Your task to perform on an android device: delete a single message in the gmail app Image 0: 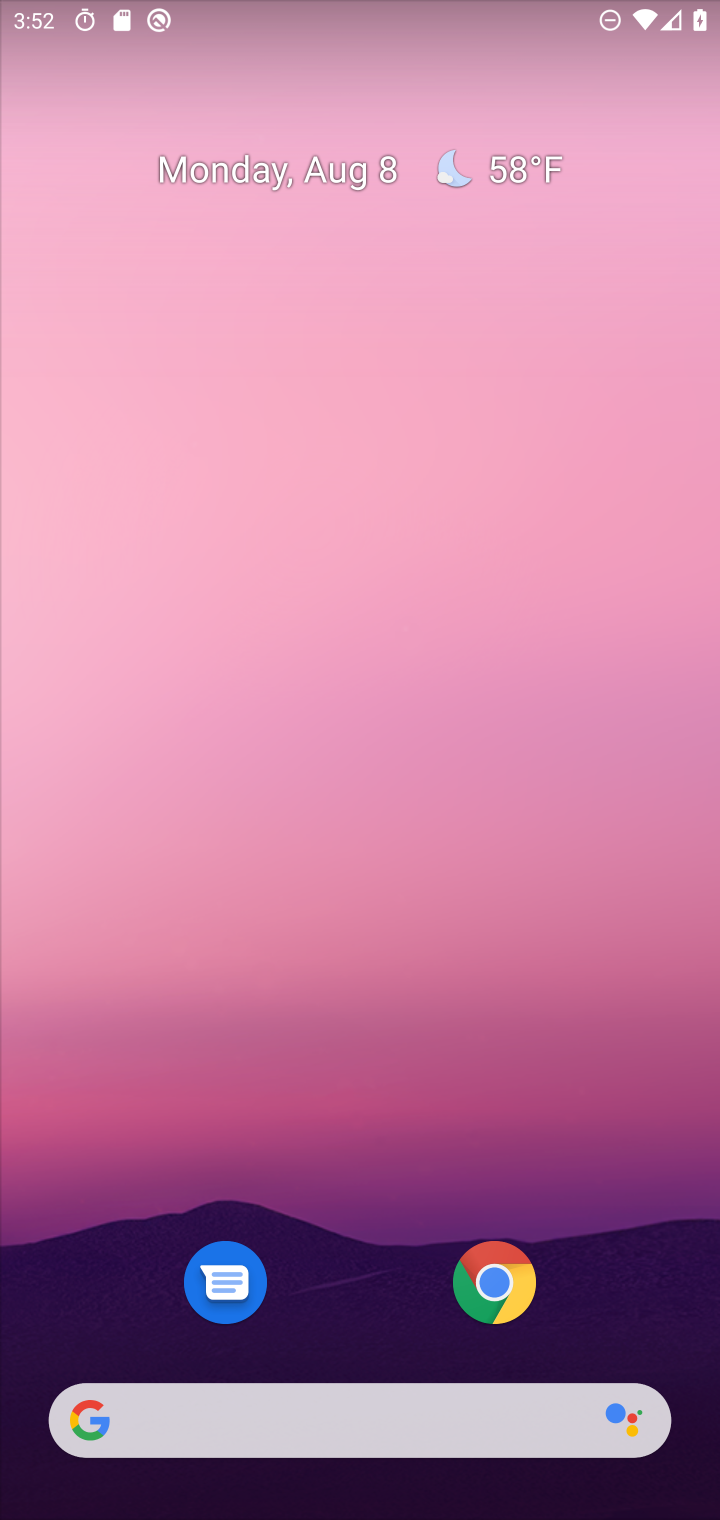
Step 0: drag from (313, 1093) to (342, 334)
Your task to perform on an android device: delete a single message in the gmail app Image 1: 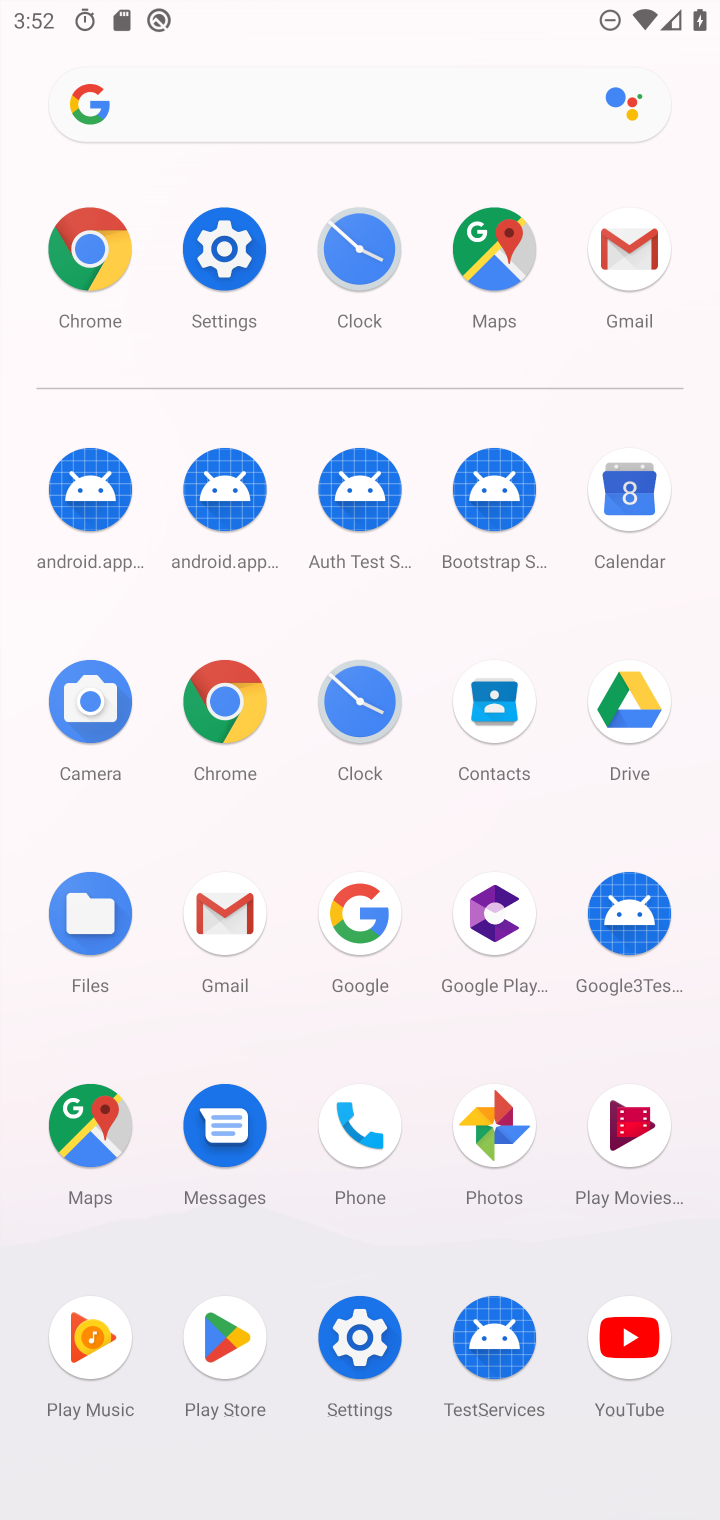
Step 1: click (228, 902)
Your task to perform on an android device: delete a single message in the gmail app Image 2: 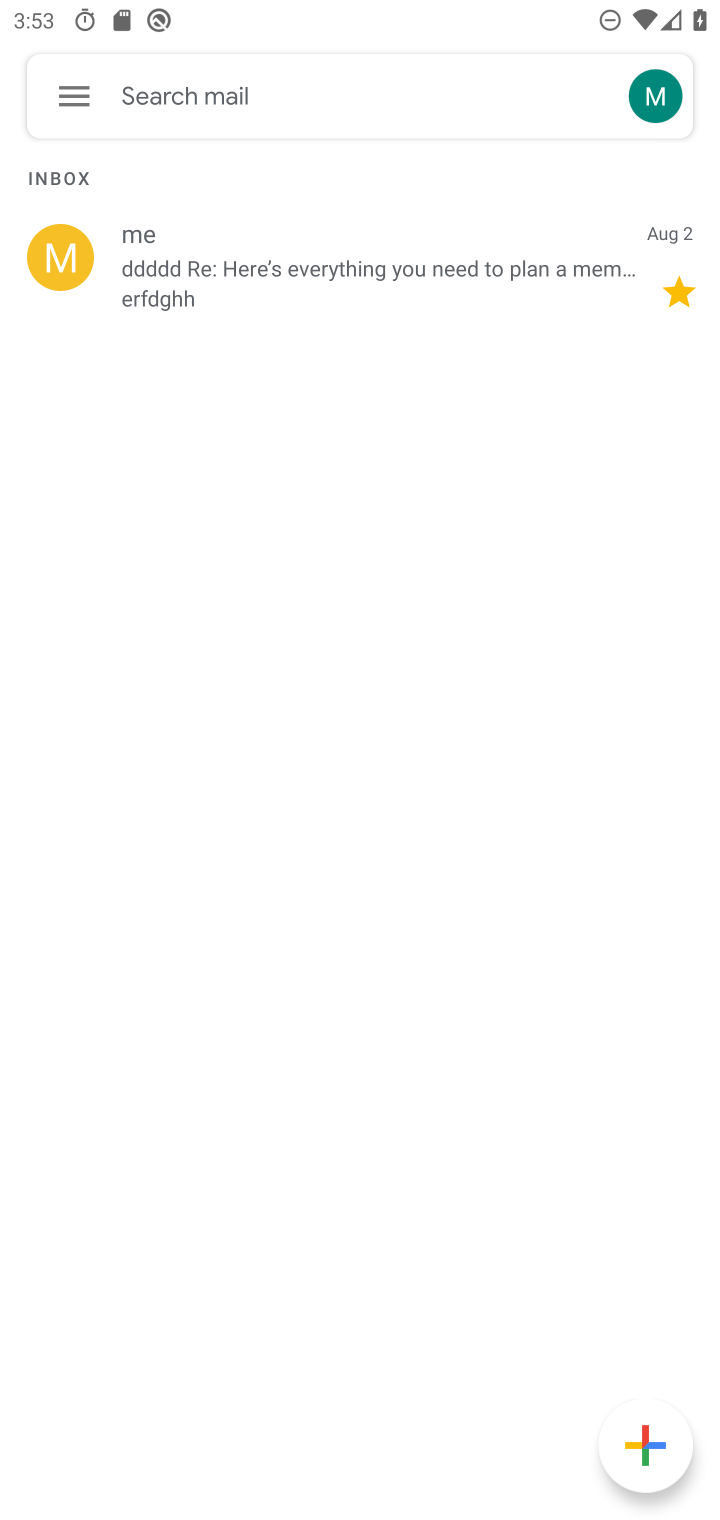
Step 2: click (65, 86)
Your task to perform on an android device: delete a single message in the gmail app Image 3: 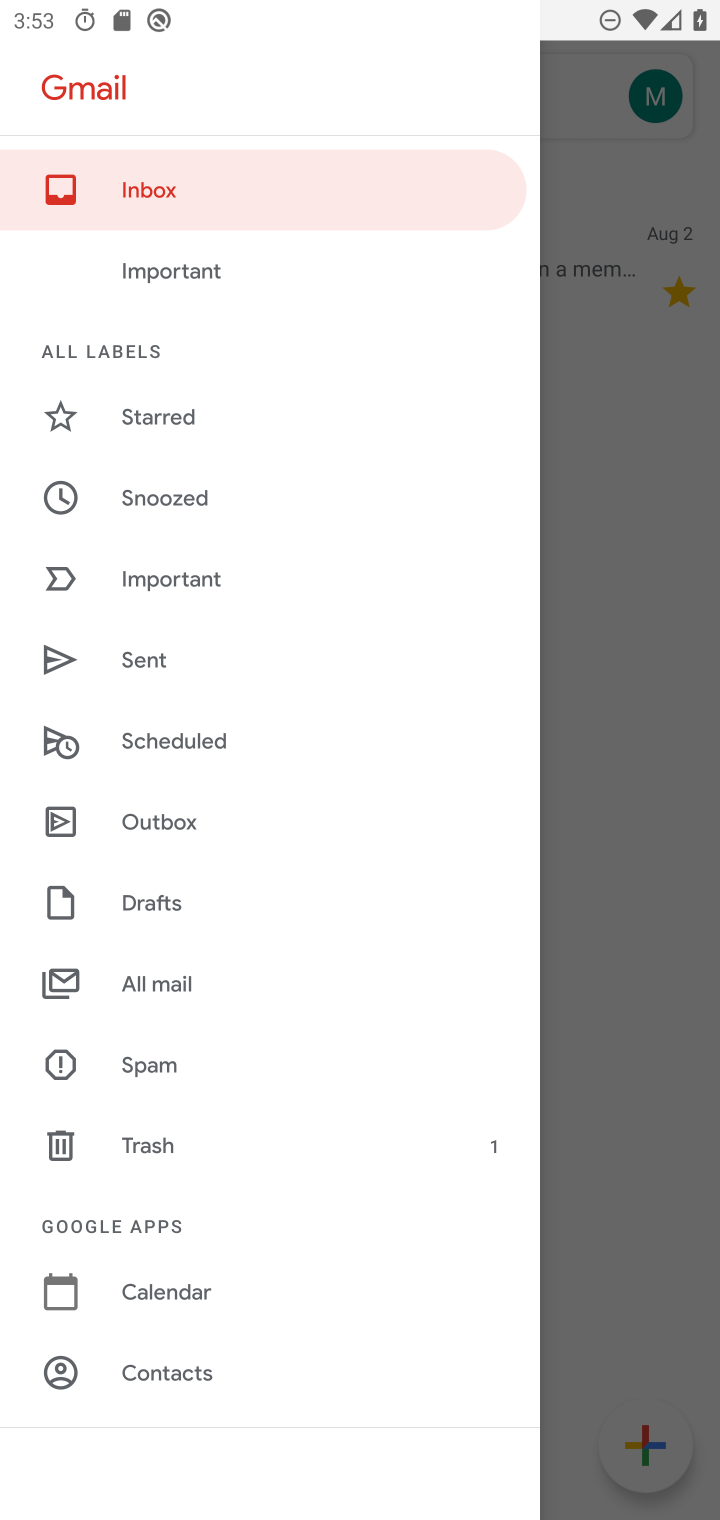
Step 3: click (171, 965)
Your task to perform on an android device: delete a single message in the gmail app Image 4: 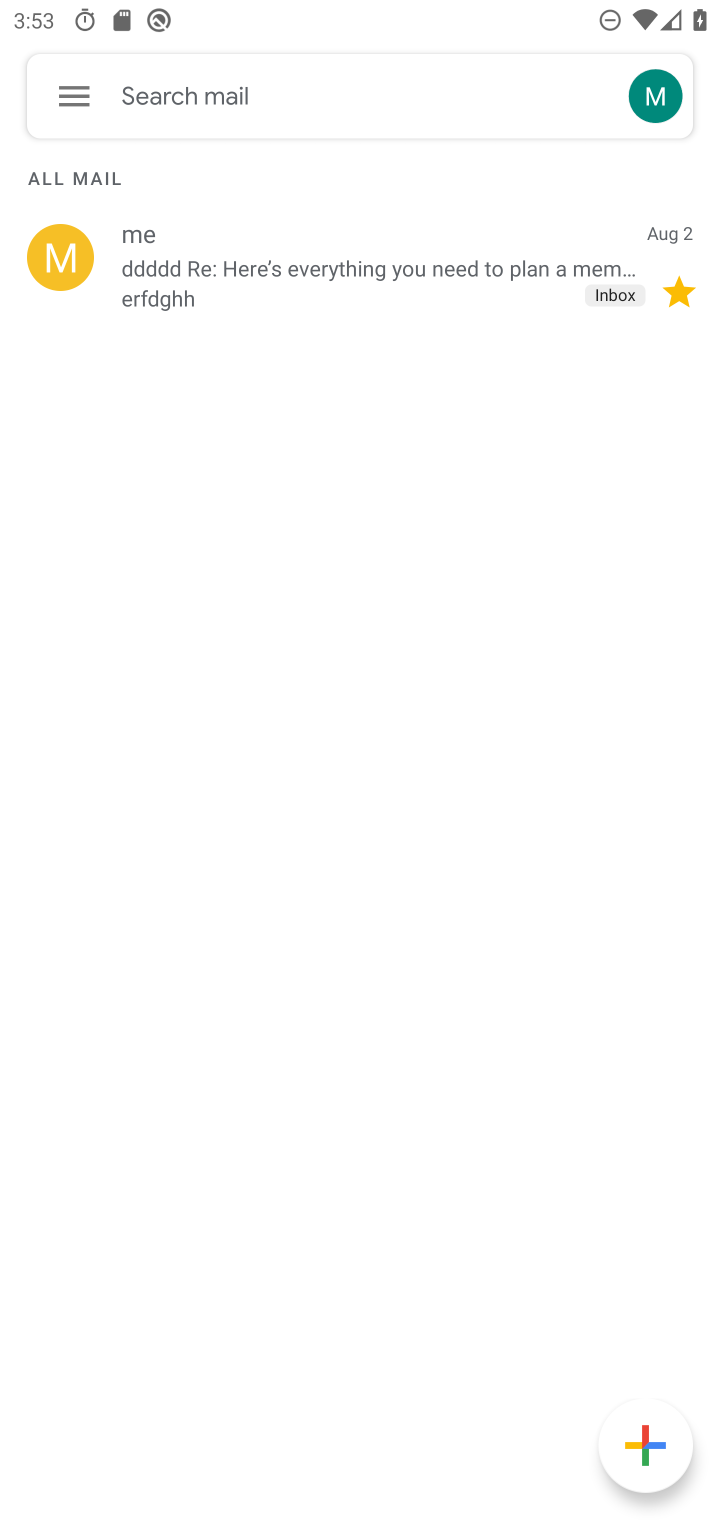
Step 4: click (486, 251)
Your task to perform on an android device: delete a single message in the gmail app Image 5: 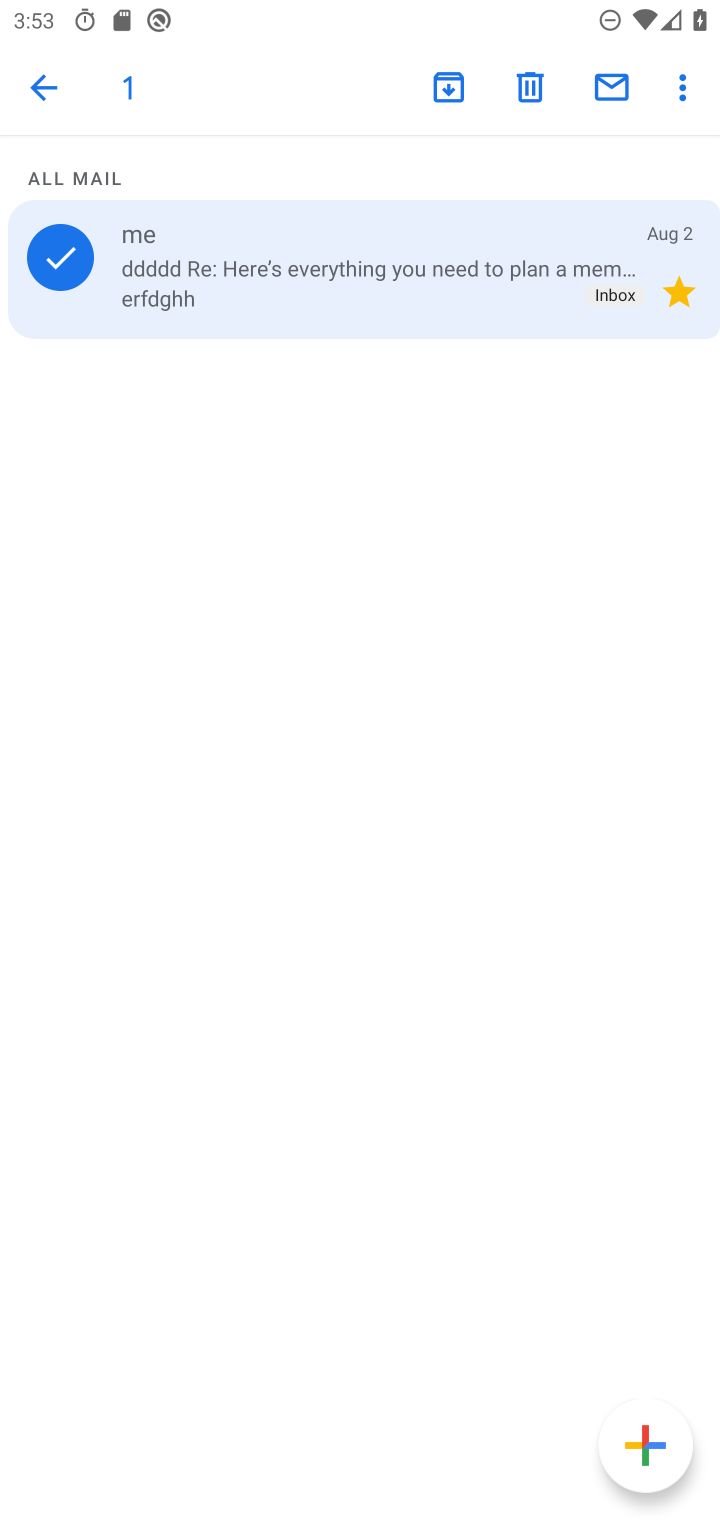
Step 5: click (535, 71)
Your task to perform on an android device: delete a single message in the gmail app Image 6: 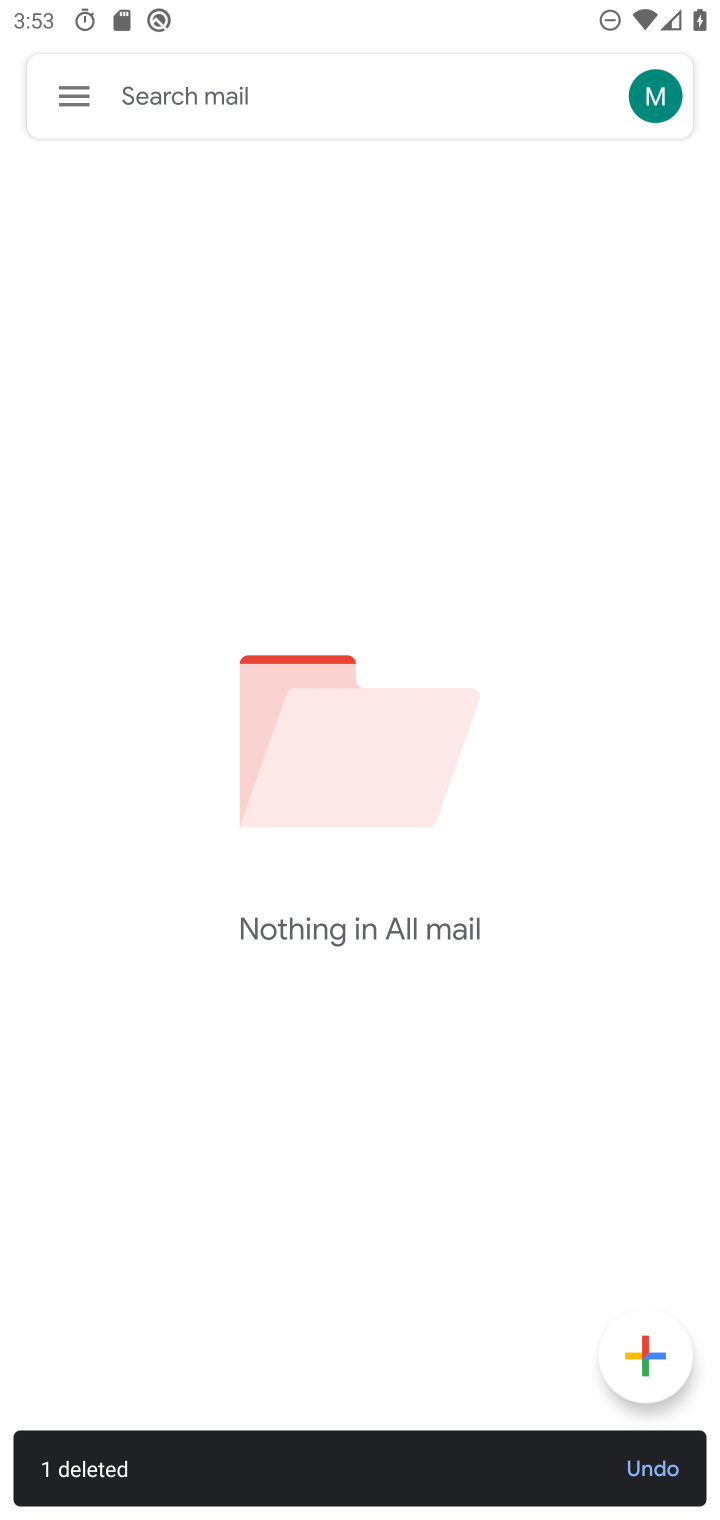
Step 6: task complete